Your task to perform on an android device: turn off javascript in the chrome app Image 0: 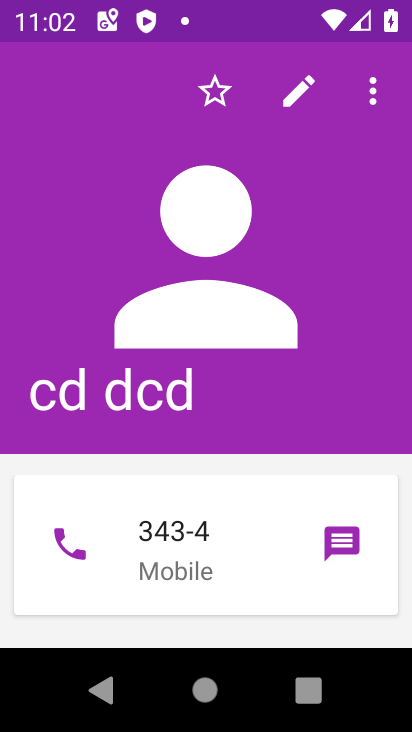
Step 0: press home button
Your task to perform on an android device: turn off javascript in the chrome app Image 1: 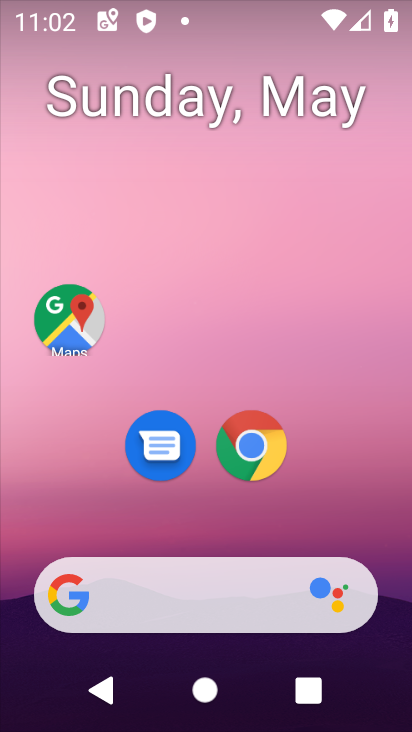
Step 1: click (256, 443)
Your task to perform on an android device: turn off javascript in the chrome app Image 2: 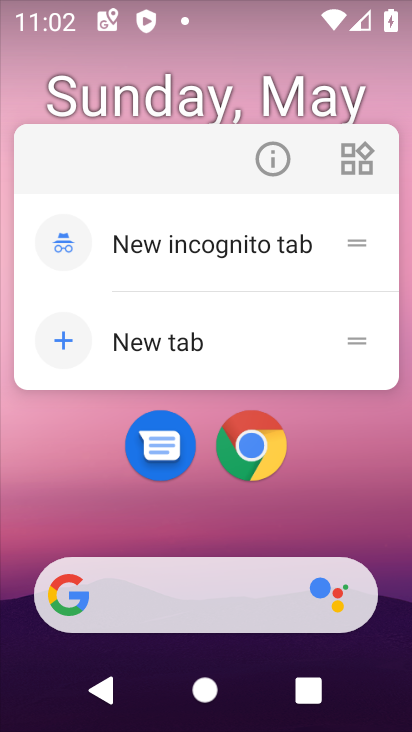
Step 2: click (247, 442)
Your task to perform on an android device: turn off javascript in the chrome app Image 3: 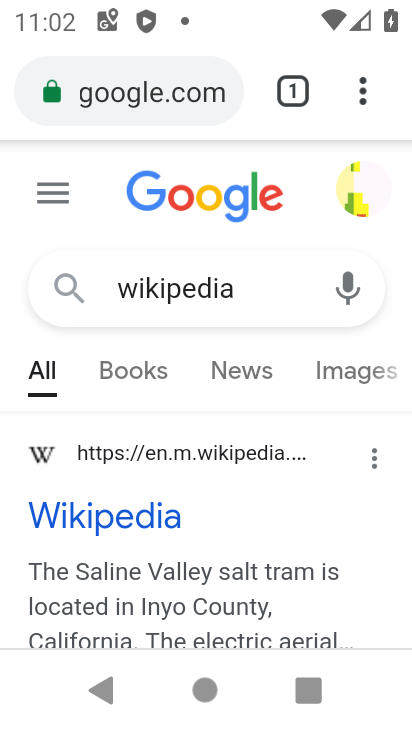
Step 3: click (364, 92)
Your task to perform on an android device: turn off javascript in the chrome app Image 4: 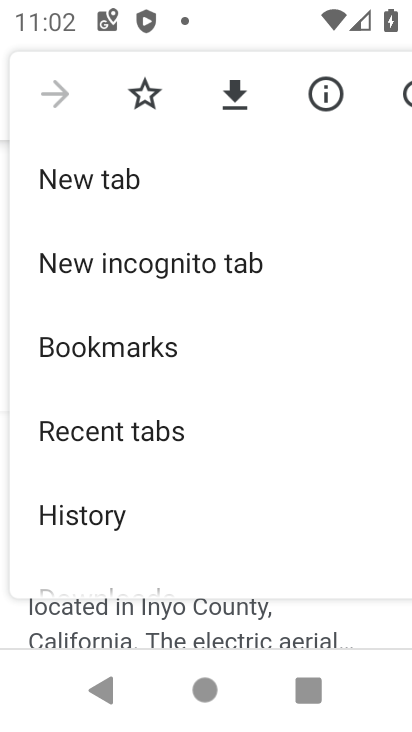
Step 4: drag from (127, 499) to (168, 137)
Your task to perform on an android device: turn off javascript in the chrome app Image 5: 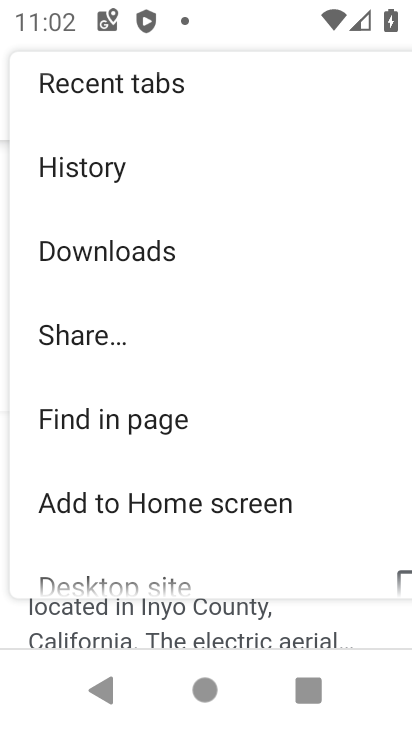
Step 5: drag from (122, 503) to (127, 318)
Your task to perform on an android device: turn off javascript in the chrome app Image 6: 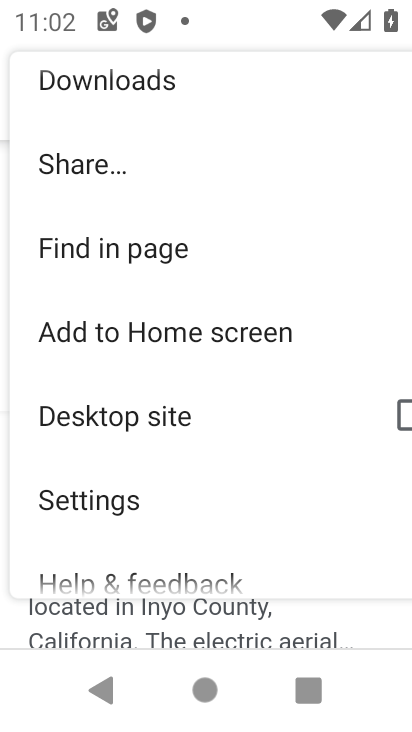
Step 6: click (114, 505)
Your task to perform on an android device: turn off javascript in the chrome app Image 7: 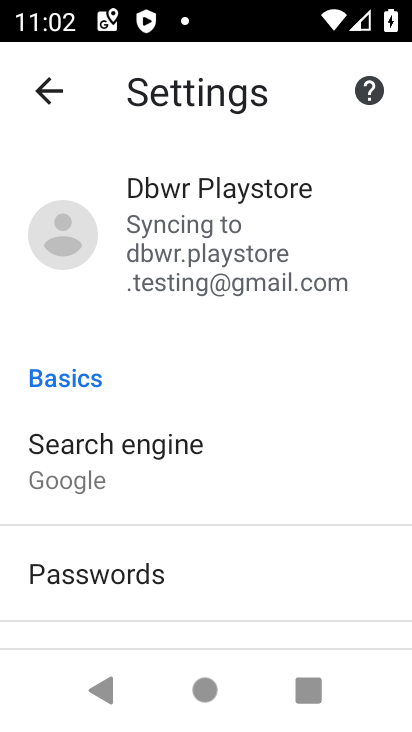
Step 7: drag from (140, 517) to (186, 234)
Your task to perform on an android device: turn off javascript in the chrome app Image 8: 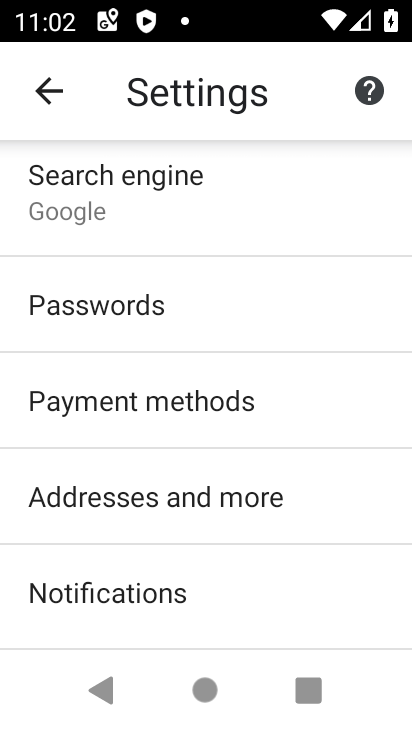
Step 8: drag from (174, 540) to (197, 202)
Your task to perform on an android device: turn off javascript in the chrome app Image 9: 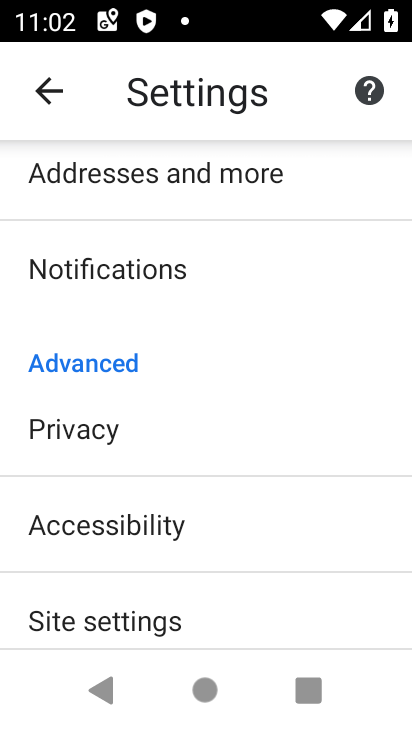
Step 9: click (134, 614)
Your task to perform on an android device: turn off javascript in the chrome app Image 10: 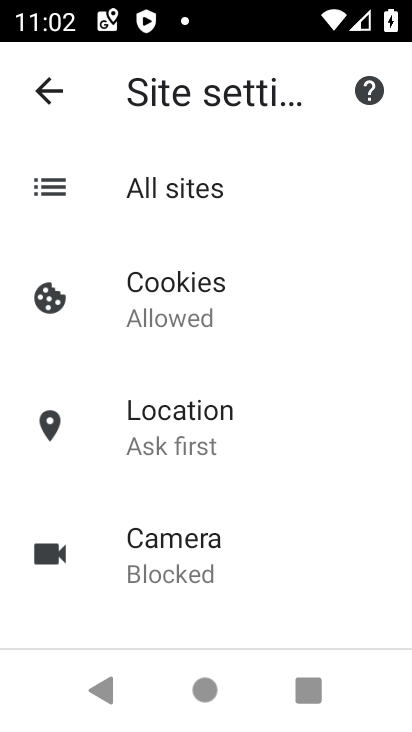
Step 10: drag from (155, 484) to (182, 115)
Your task to perform on an android device: turn off javascript in the chrome app Image 11: 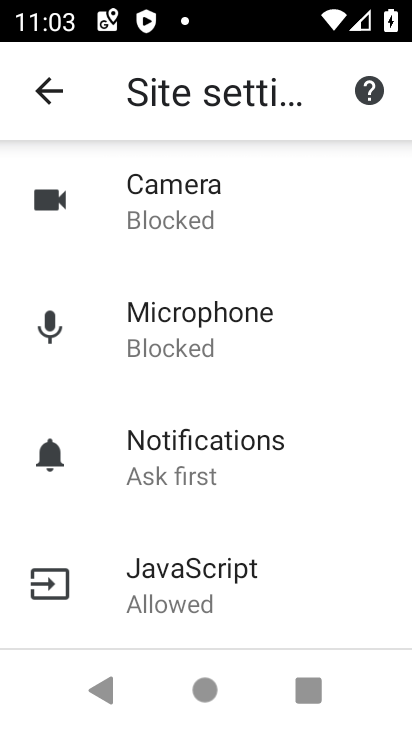
Step 11: drag from (218, 518) to (259, 267)
Your task to perform on an android device: turn off javascript in the chrome app Image 12: 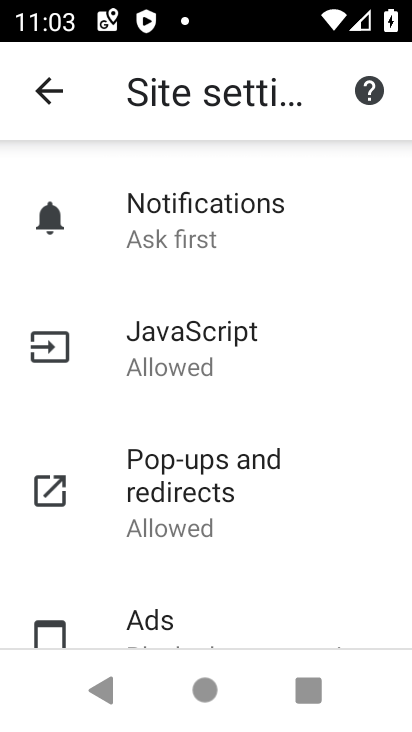
Step 12: click (177, 335)
Your task to perform on an android device: turn off javascript in the chrome app Image 13: 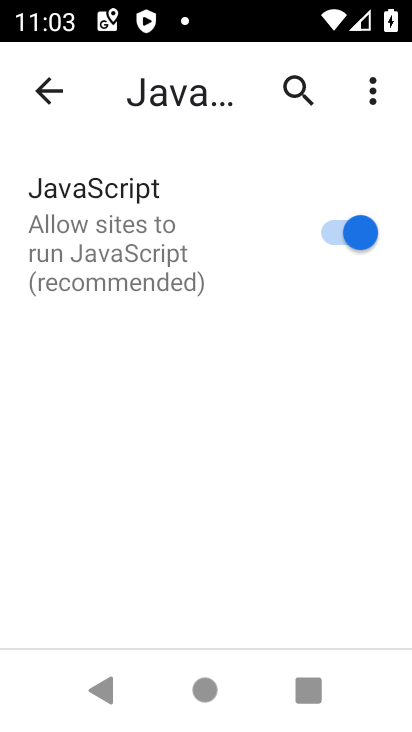
Step 13: click (335, 237)
Your task to perform on an android device: turn off javascript in the chrome app Image 14: 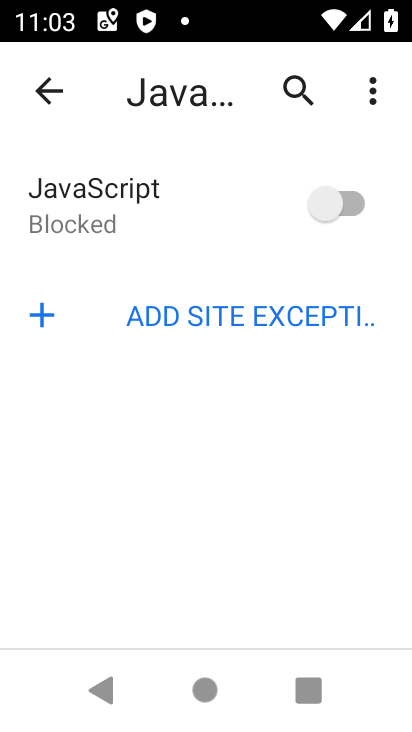
Step 14: task complete